Your task to perform on an android device: Do I have any events tomorrow? Image 0: 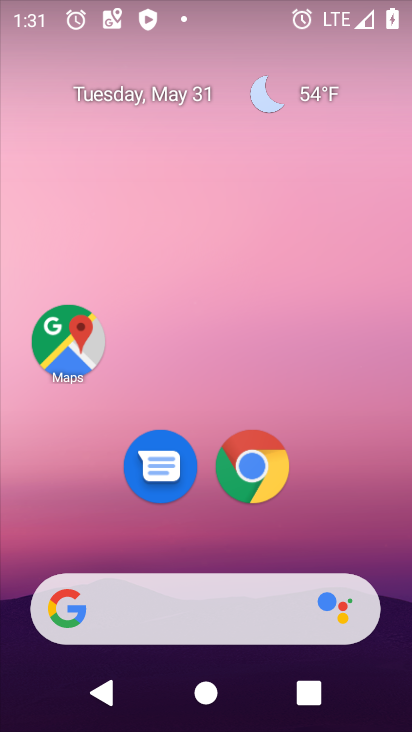
Step 0: drag from (237, 582) to (248, 25)
Your task to perform on an android device: Do I have any events tomorrow? Image 1: 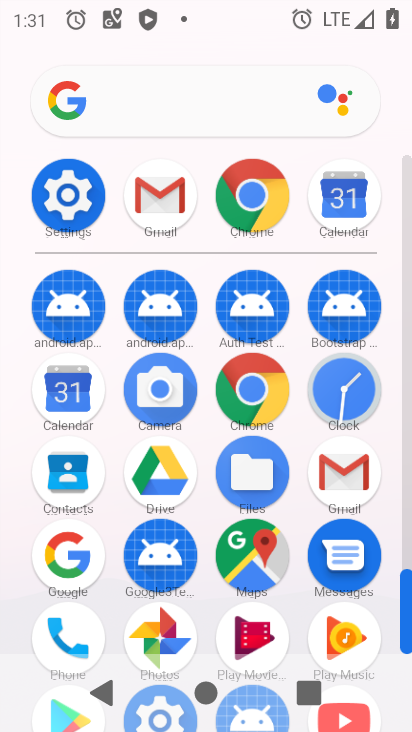
Step 1: click (74, 398)
Your task to perform on an android device: Do I have any events tomorrow? Image 2: 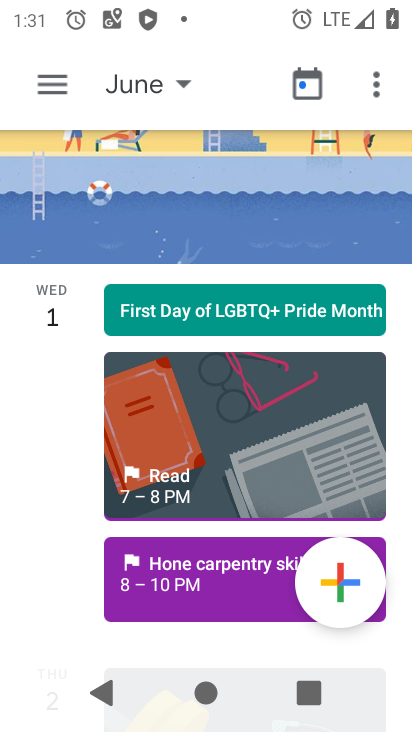
Step 2: task complete